Your task to perform on an android device: toggle pop-ups in chrome Image 0: 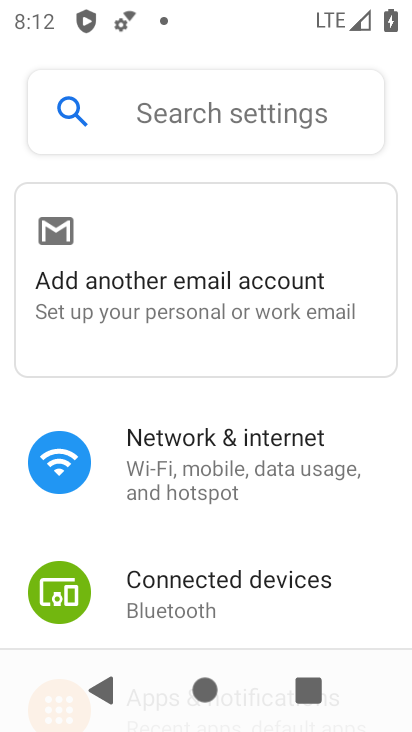
Step 0: press home button
Your task to perform on an android device: toggle pop-ups in chrome Image 1: 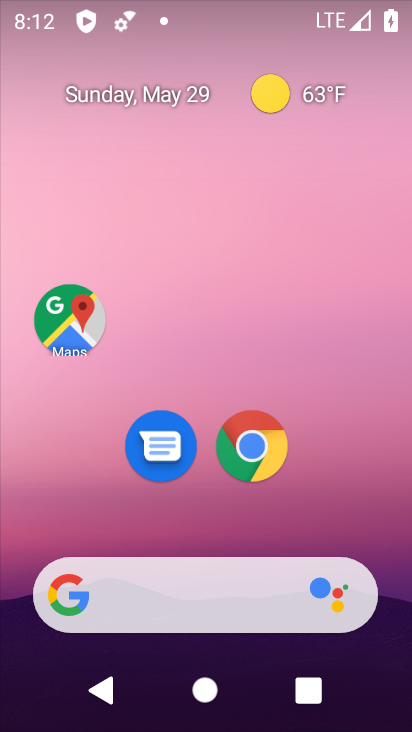
Step 1: click (242, 462)
Your task to perform on an android device: toggle pop-ups in chrome Image 2: 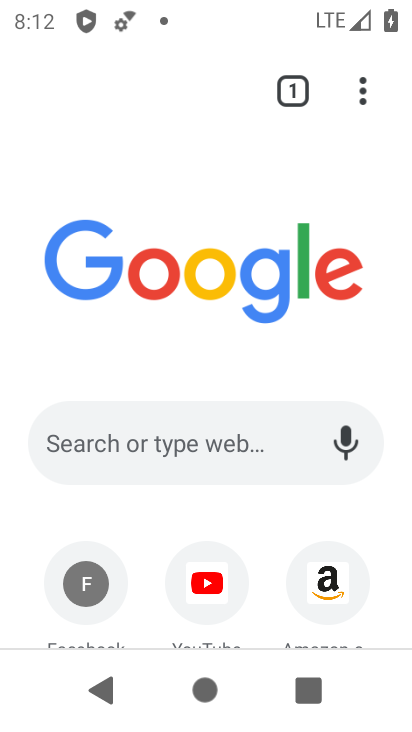
Step 2: click (361, 98)
Your task to perform on an android device: toggle pop-ups in chrome Image 3: 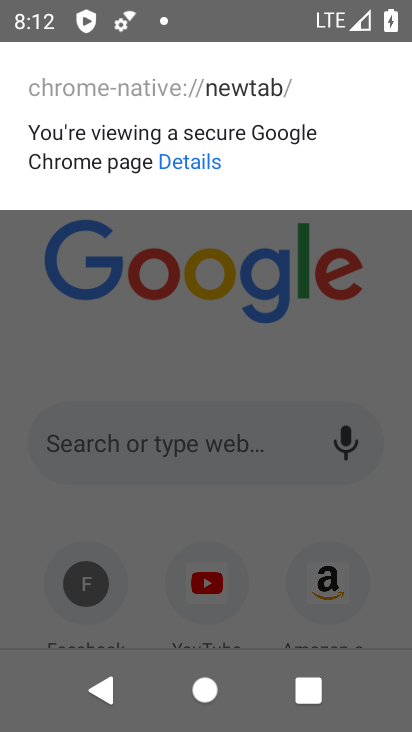
Step 3: click (360, 283)
Your task to perform on an android device: toggle pop-ups in chrome Image 4: 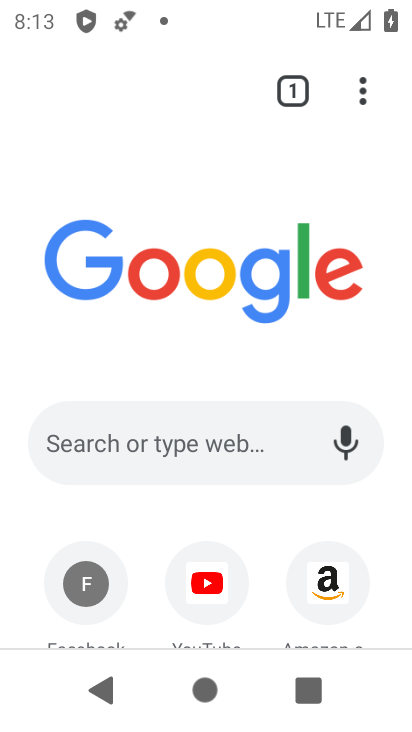
Step 4: click (365, 85)
Your task to perform on an android device: toggle pop-ups in chrome Image 5: 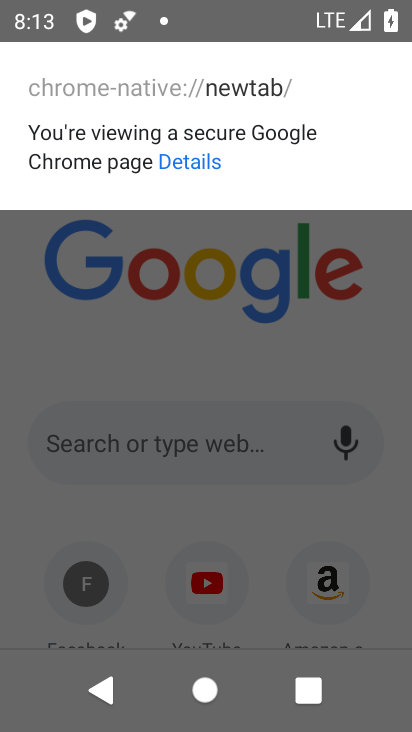
Step 5: click (278, 297)
Your task to perform on an android device: toggle pop-ups in chrome Image 6: 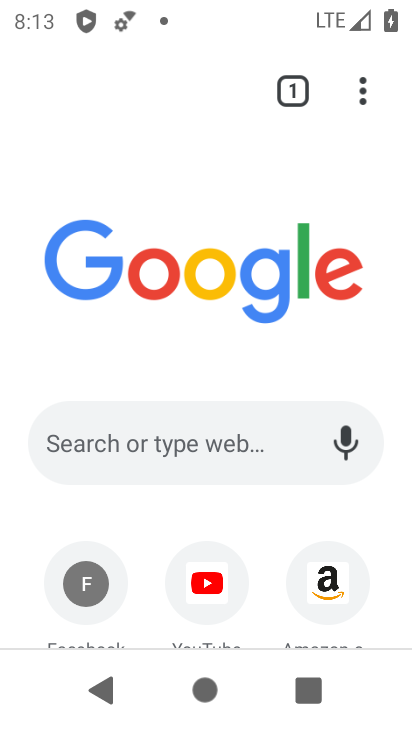
Step 6: click (361, 92)
Your task to perform on an android device: toggle pop-ups in chrome Image 7: 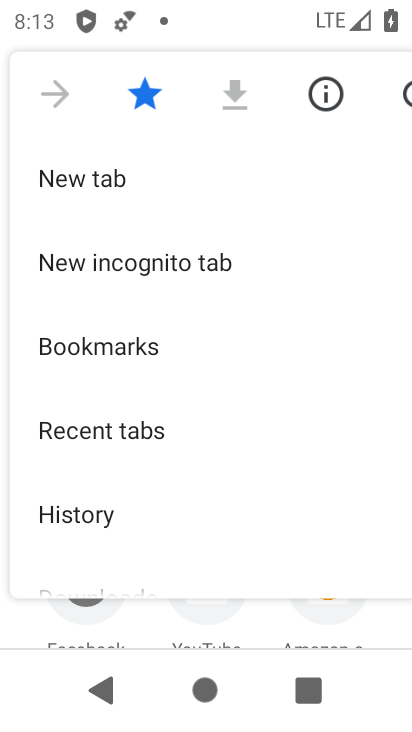
Step 7: drag from (219, 492) to (240, 265)
Your task to perform on an android device: toggle pop-ups in chrome Image 8: 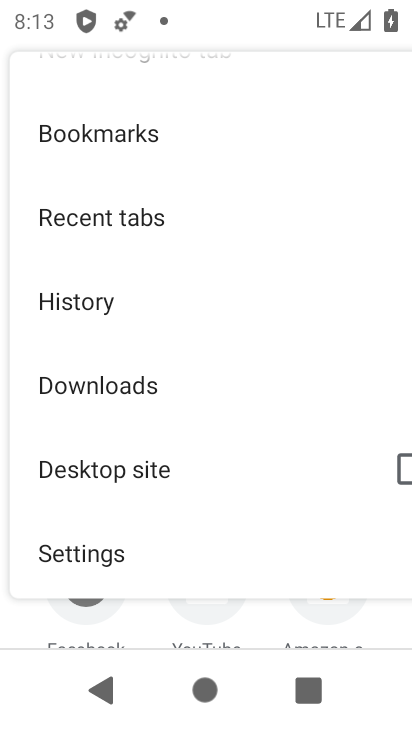
Step 8: drag from (161, 502) to (201, 309)
Your task to perform on an android device: toggle pop-ups in chrome Image 9: 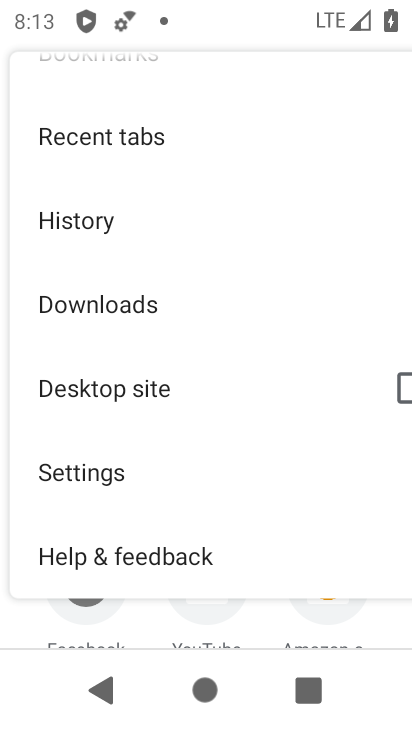
Step 9: click (104, 470)
Your task to perform on an android device: toggle pop-ups in chrome Image 10: 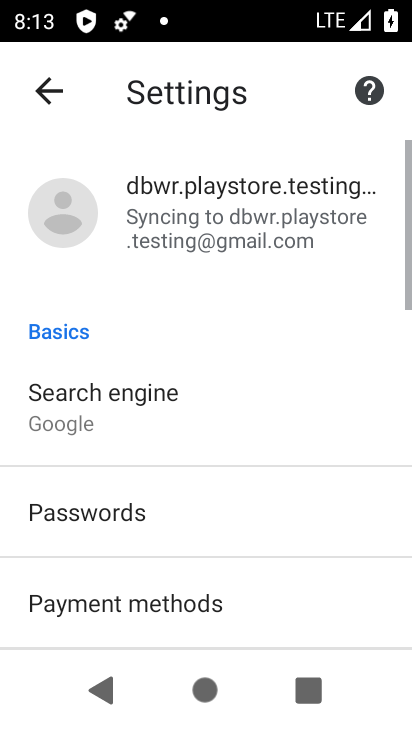
Step 10: drag from (137, 589) to (132, 249)
Your task to perform on an android device: toggle pop-ups in chrome Image 11: 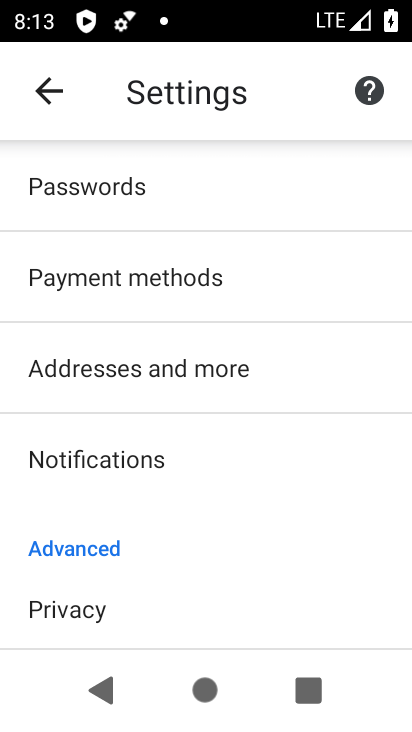
Step 11: drag from (159, 572) to (162, 240)
Your task to perform on an android device: toggle pop-ups in chrome Image 12: 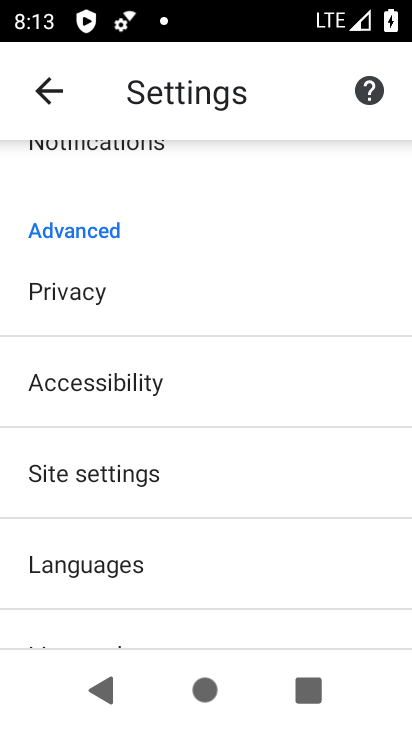
Step 12: click (168, 447)
Your task to perform on an android device: toggle pop-ups in chrome Image 13: 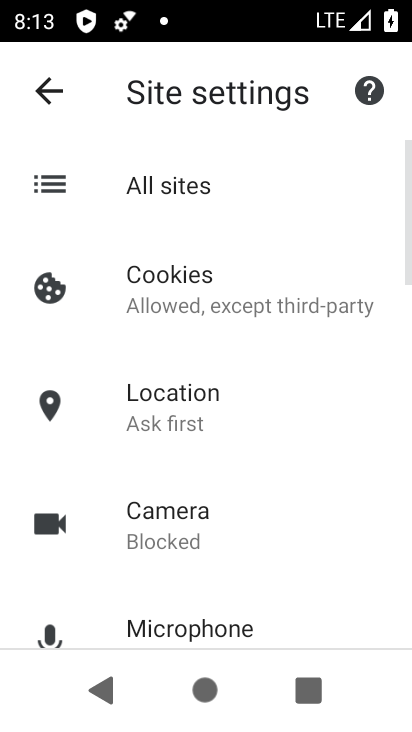
Step 13: drag from (220, 533) to (230, 211)
Your task to perform on an android device: toggle pop-ups in chrome Image 14: 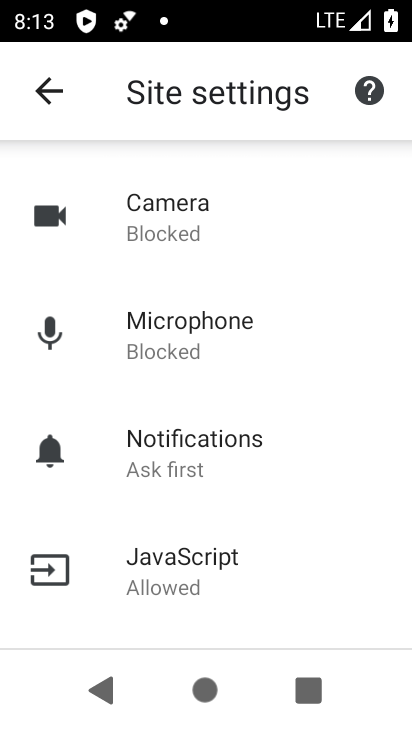
Step 14: drag from (232, 555) to (239, 319)
Your task to perform on an android device: toggle pop-ups in chrome Image 15: 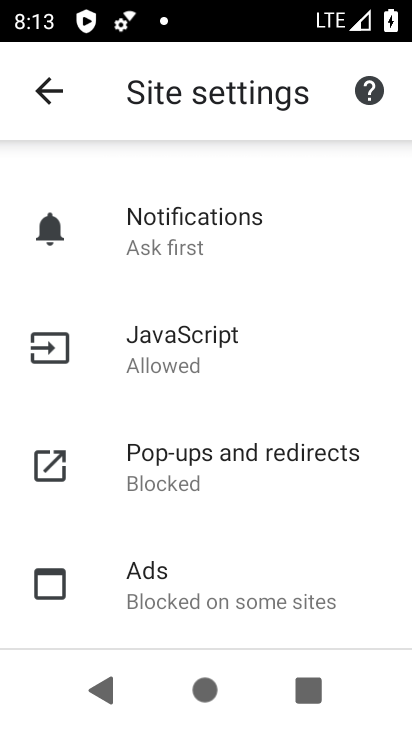
Step 15: click (233, 470)
Your task to perform on an android device: toggle pop-ups in chrome Image 16: 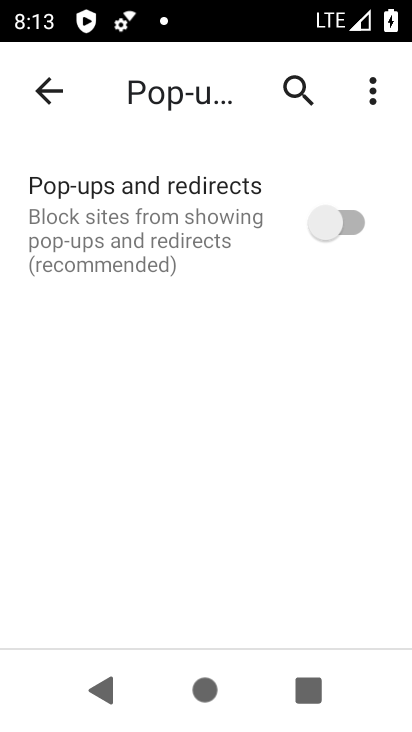
Step 16: click (347, 216)
Your task to perform on an android device: toggle pop-ups in chrome Image 17: 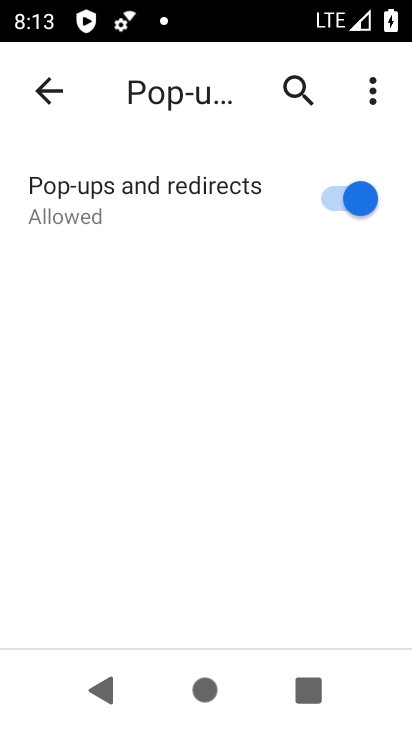
Step 17: task complete